Your task to perform on an android device: Open internet settings Image 0: 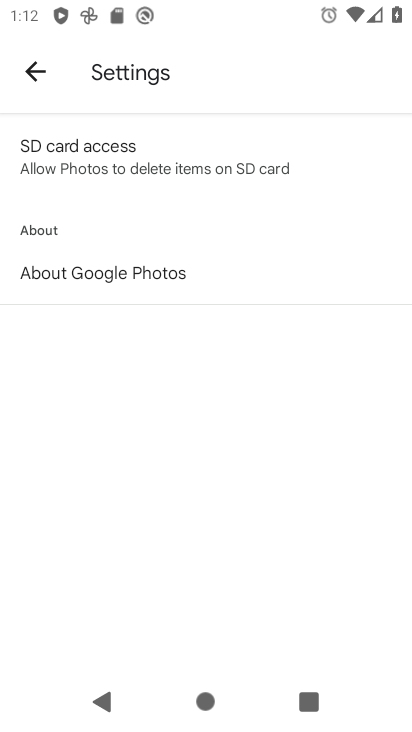
Step 0: press home button
Your task to perform on an android device: Open internet settings Image 1: 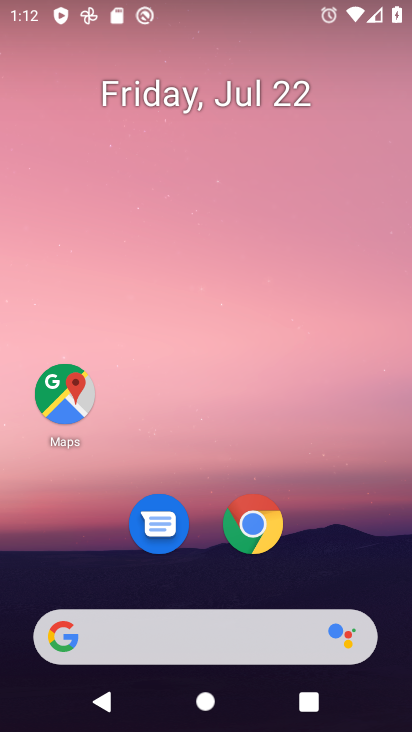
Step 1: drag from (159, 640) to (309, 210)
Your task to perform on an android device: Open internet settings Image 2: 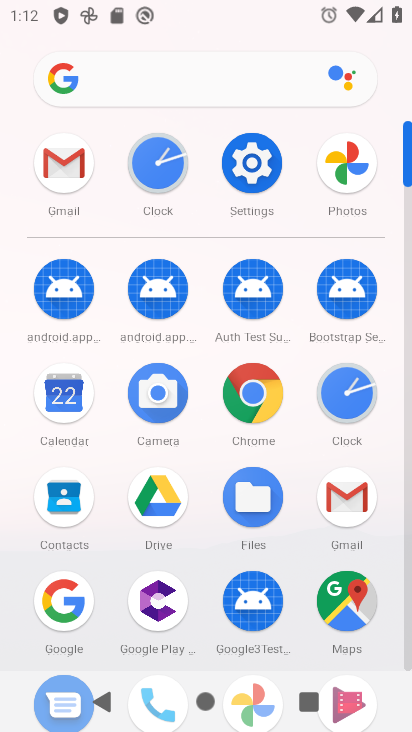
Step 2: click (262, 158)
Your task to perform on an android device: Open internet settings Image 3: 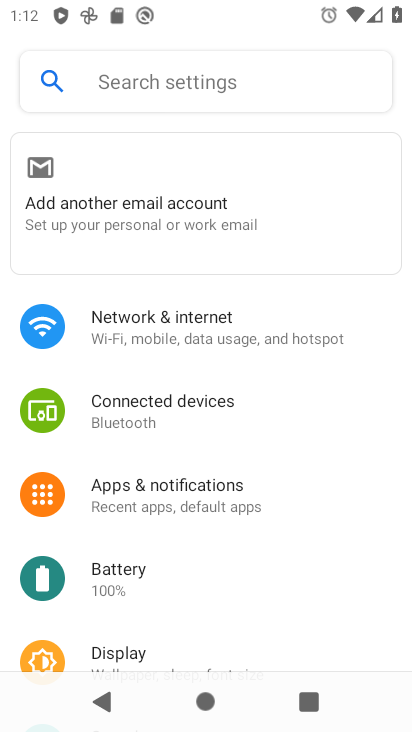
Step 3: click (184, 315)
Your task to perform on an android device: Open internet settings Image 4: 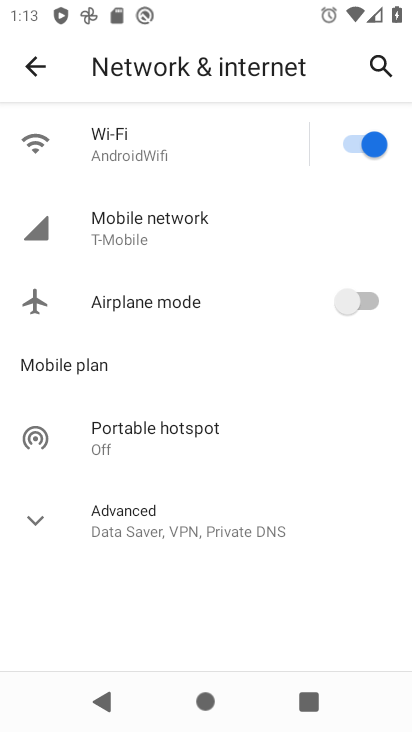
Step 4: task complete